Your task to perform on an android device: Go to privacy settings Image 0: 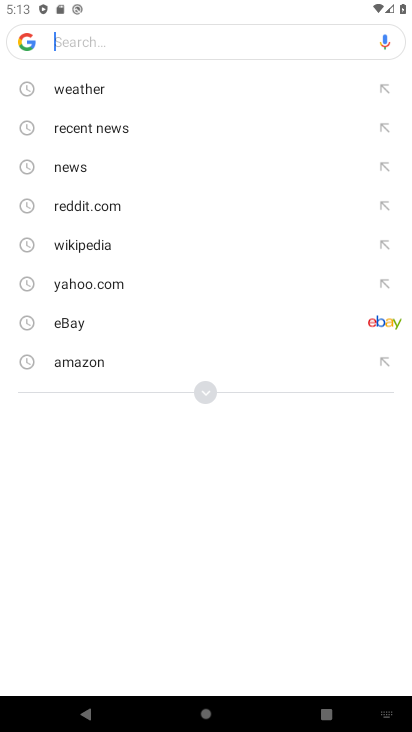
Step 0: press home button
Your task to perform on an android device: Go to privacy settings Image 1: 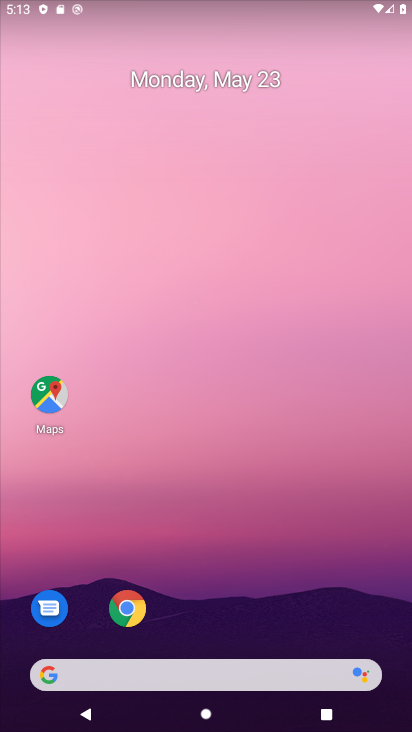
Step 1: drag from (51, 514) to (249, 87)
Your task to perform on an android device: Go to privacy settings Image 2: 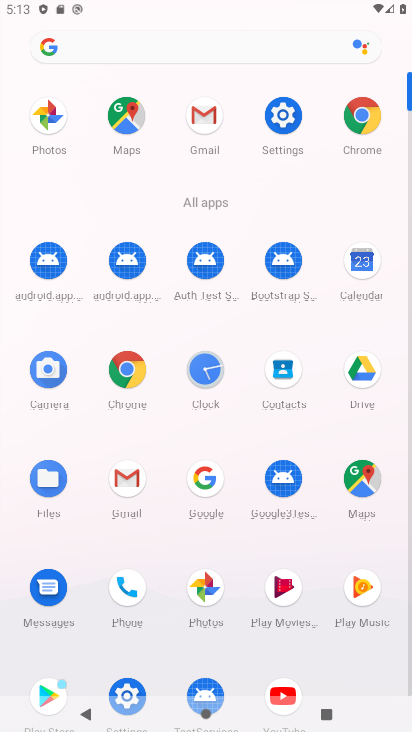
Step 2: click (280, 114)
Your task to perform on an android device: Go to privacy settings Image 3: 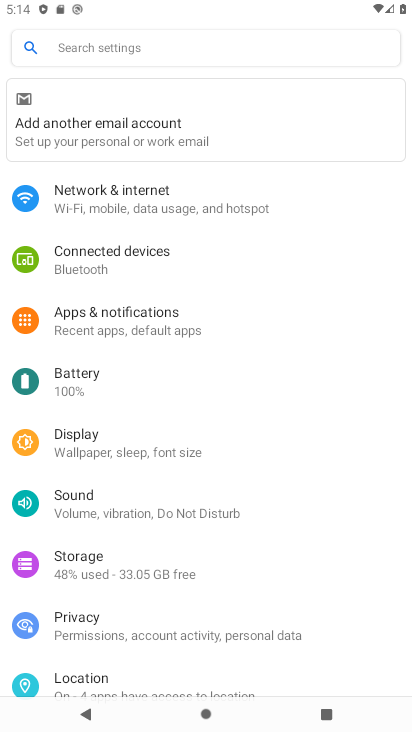
Step 3: click (122, 628)
Your task to perform on an android device: Go to privacy settings Image 4: 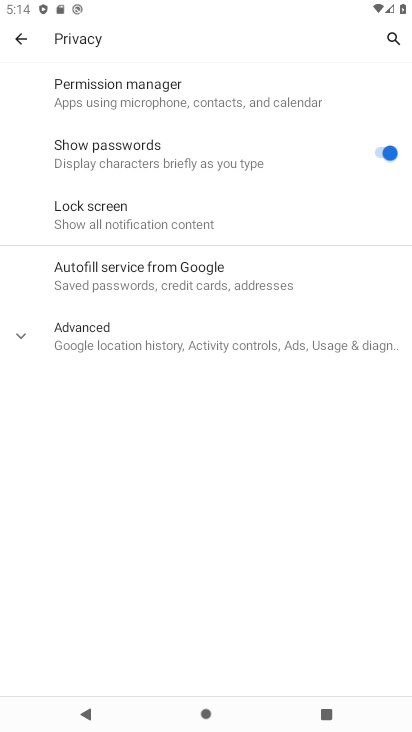
Step 4: task complete